Your task to perform on an android device: Open internet settings Image 0: 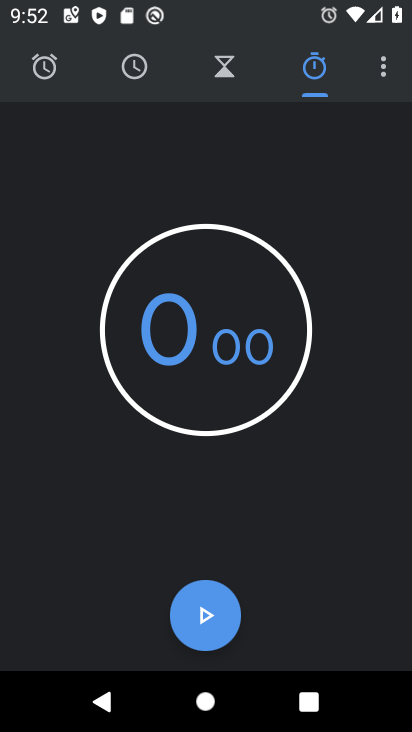
Step 0: press home button
Your task to perform on an android device: Open internet settings Image 1: 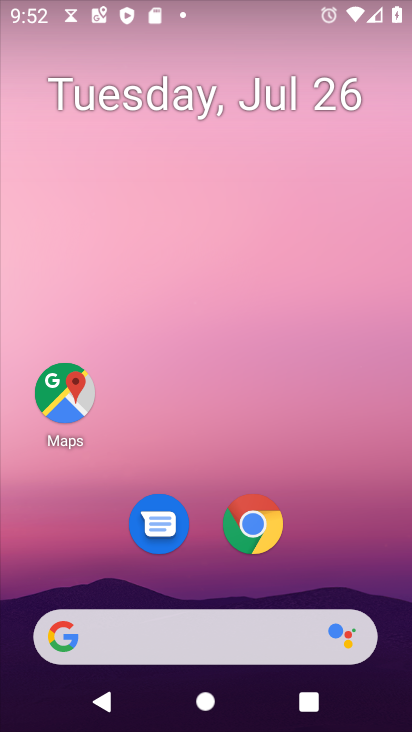
Step 1: drag from (235, 638) to (371, 44)
Your task to perform on an android device: Open internet settings Image 2: 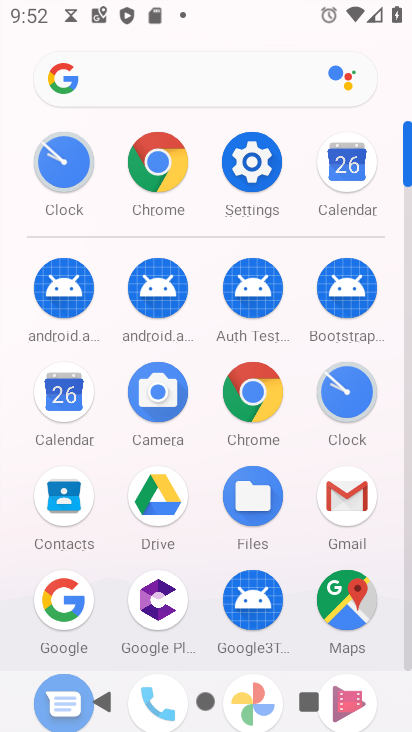
Step 2: click (247, 164)
Your task to perform on an android device: Open internet settings Image 3: 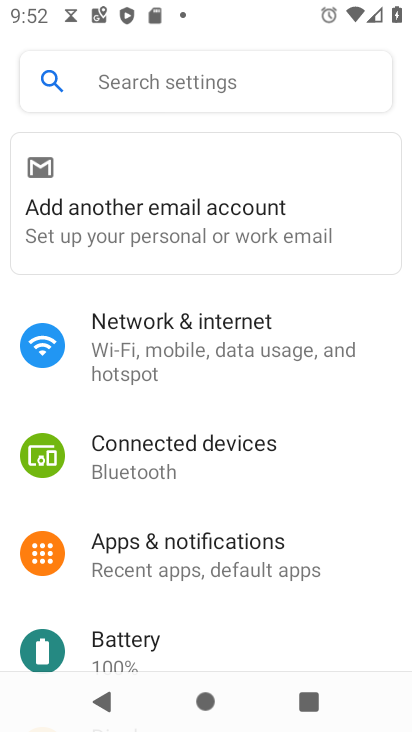
Step 3: click (189, 341)
Your task to perform on an android device: Open internet settings Image 4: 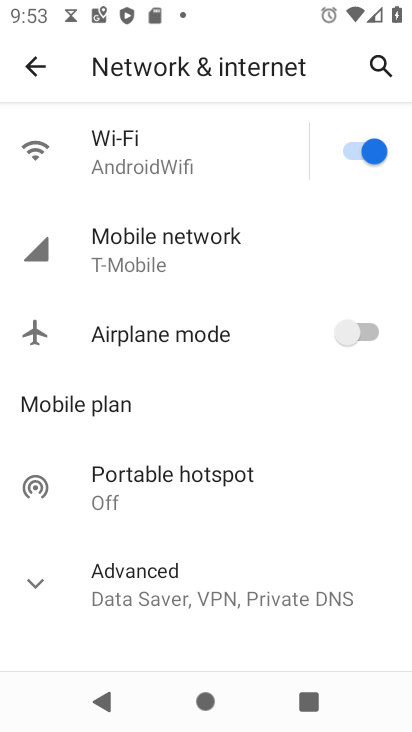
Step 4: task complete